Your task to perform on an android device: clear history in the chrome app Image 0: 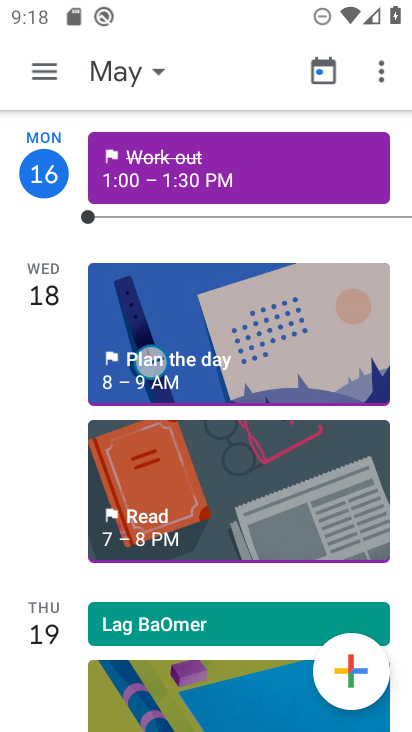
Step 0: press home button
Your task to perform on an android device: clear history in the chrome app Image 1: 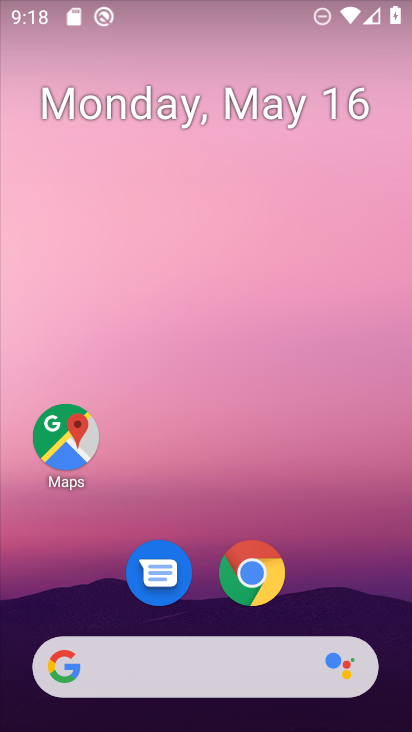
Step 1: click (246, 571)
Your task to perform on an android device: clear history in the chrome app Image 2: 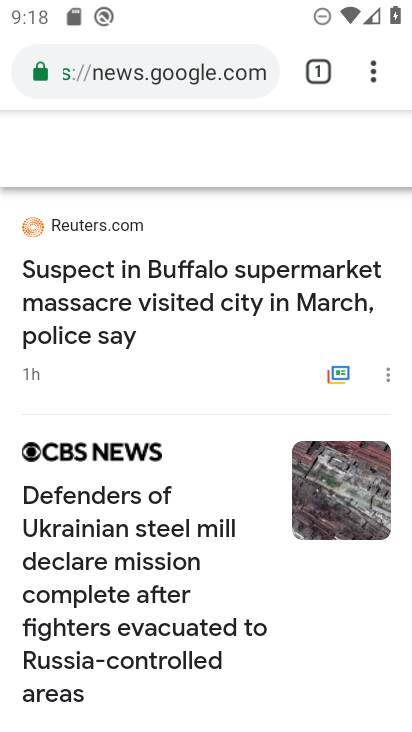
Step 2: drag from (369, 64) to (181, 405)
Your task to perform on an android device: clear history in the chrome app Image 3: 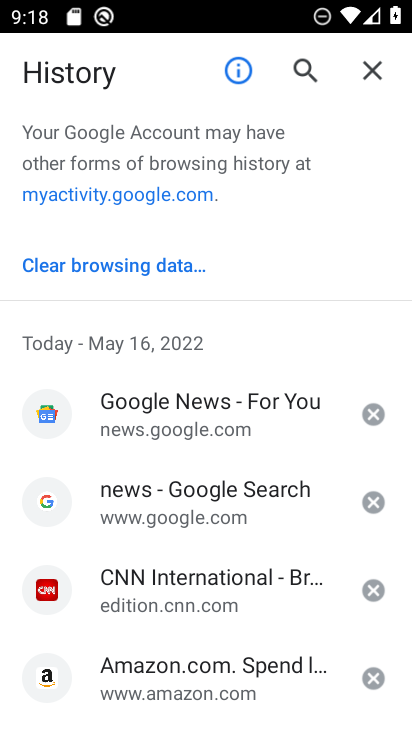
Step 3: click (137, 266)
Your task to perform on an android device: clear history in the chrome app Image 4: 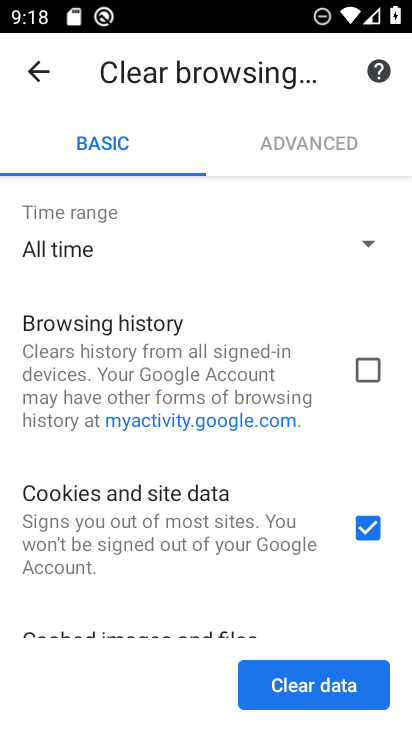
Step 4: click (373, 376)
Your task to perform on an android device: clear history in the chrome app Image 5: 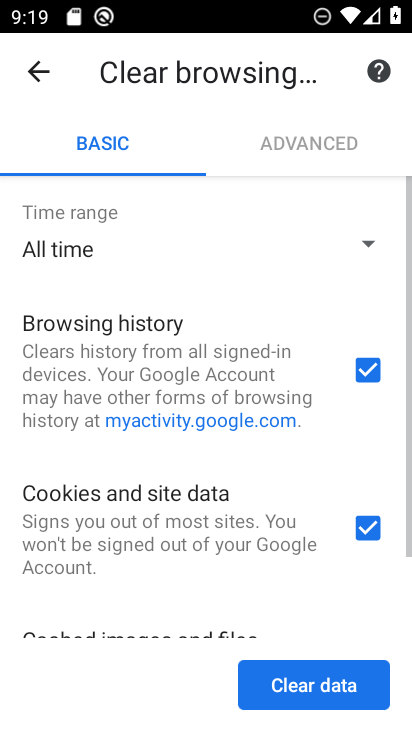
Step 5: click (350, 710)
Your task to perform on an android device: clear history in the chrome app Image 6: 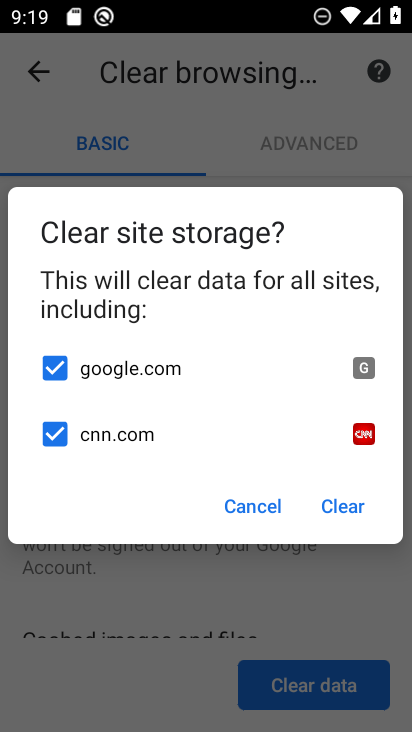
Step 6: click (350, 510)
Your task to perform on an android device: clear history in the chrome app Image 7: 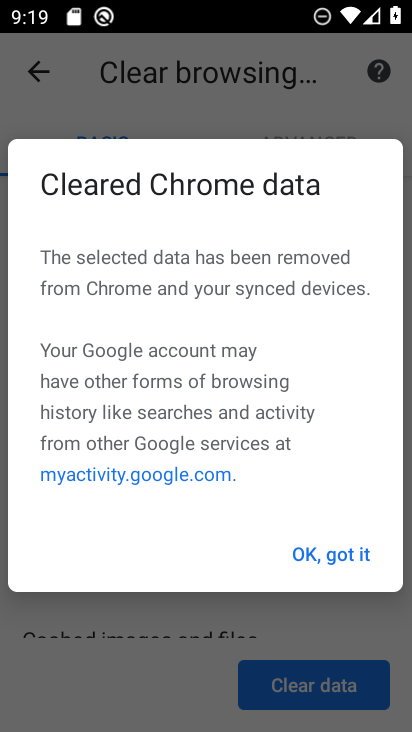
Step 7: task complete